Your task to perform on an android device: Open Google Image 0: 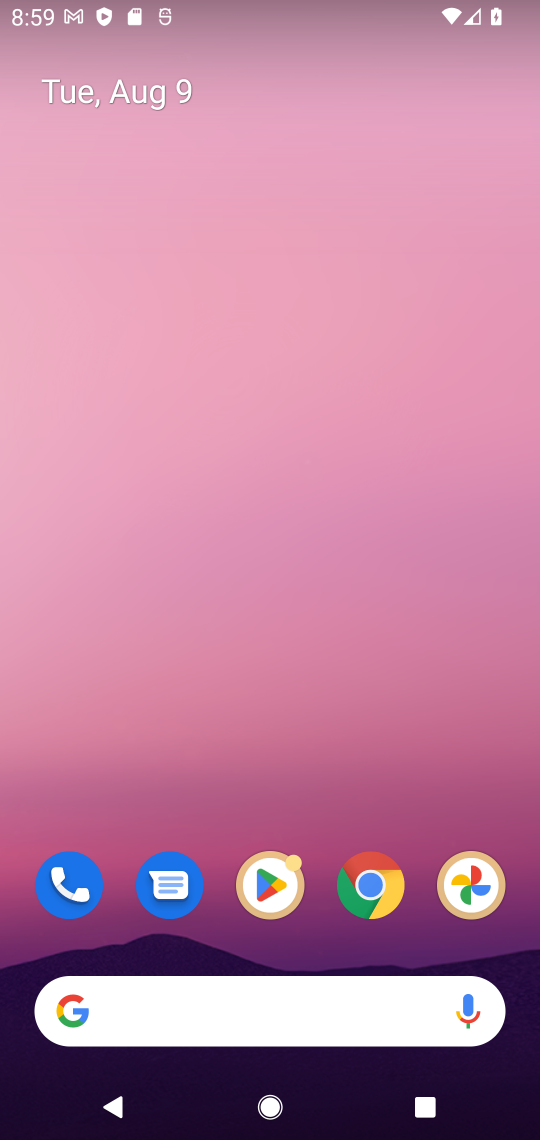
Step 0: drag from (214, 781) to (472, 19)
Your task to perform on an android device: Open Google Image 1: 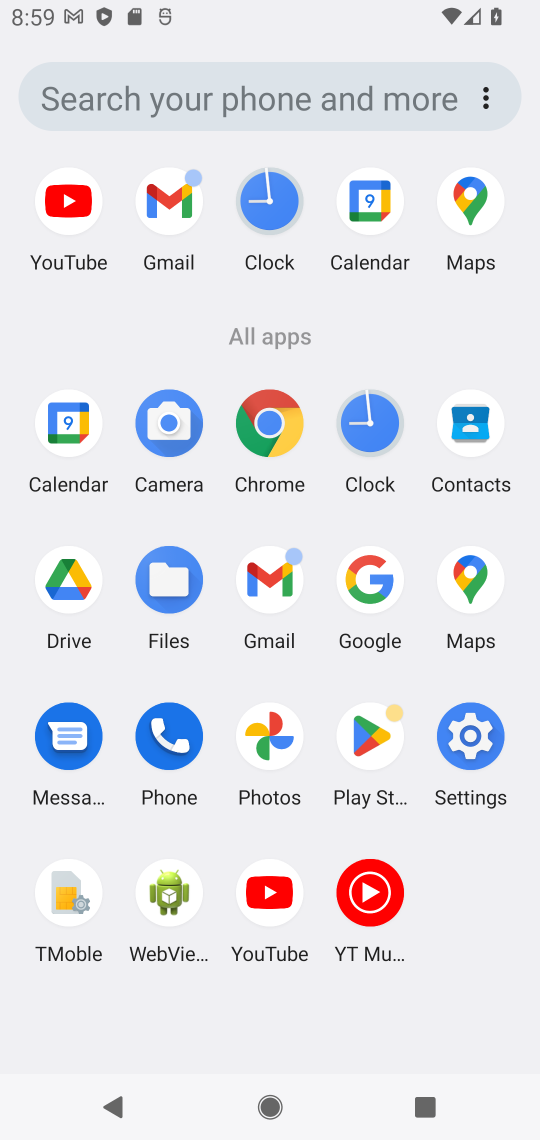
Step 1: click (367, 594)
Your task to perform on an android device: Open Google Image 2: 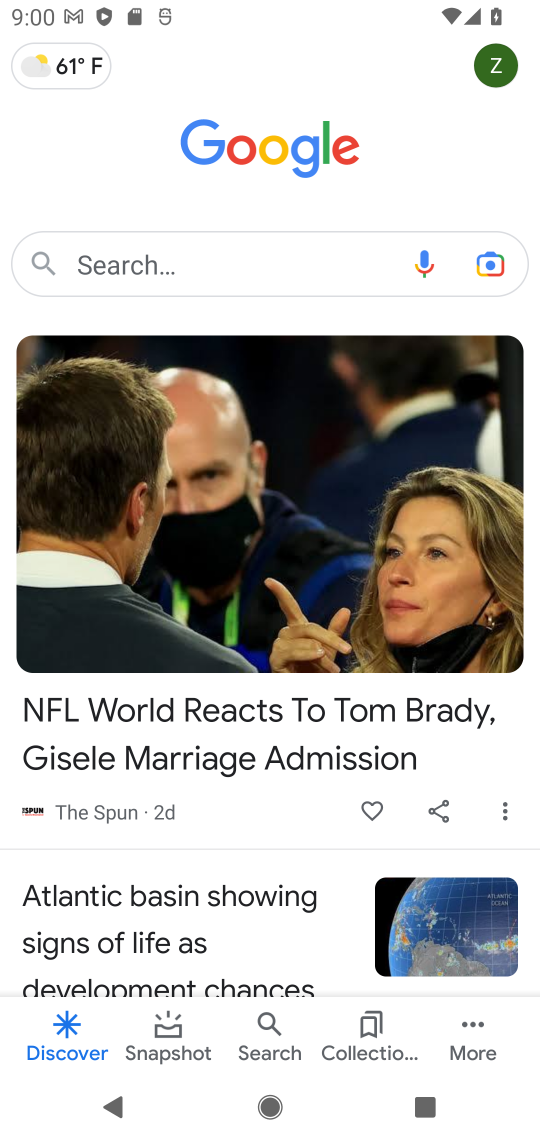
Step 2: task complete